Your task to perform on an android device: turn off sleep mode Image 0: 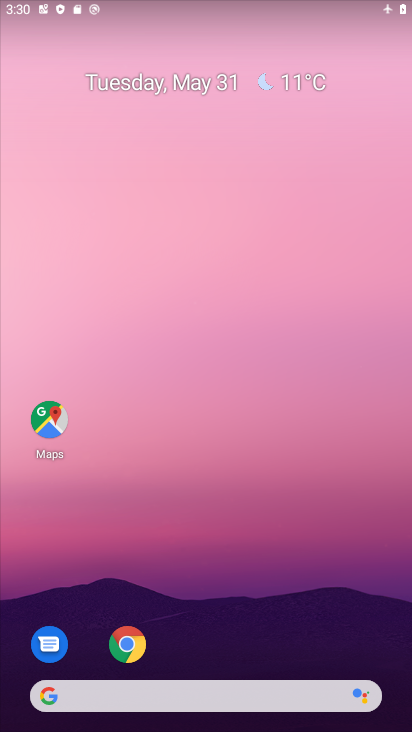
Step 0: drag from (206, 609) to (199, 534)
Your task to perform on an android device: turn off sleep mode Image 1: 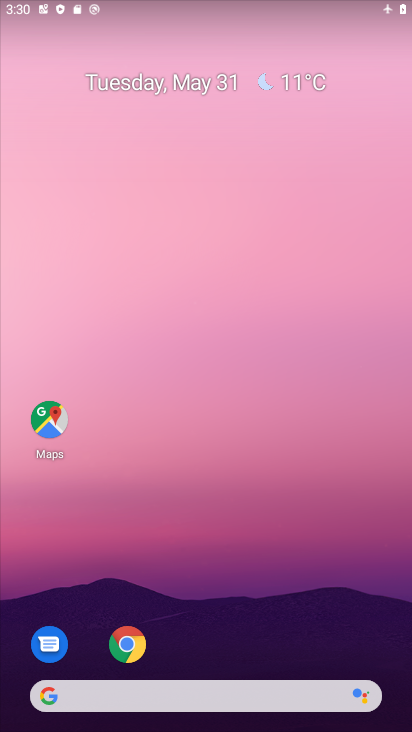
Step 1: drag from (223, 598) to (223, 402)
Your task to perform on an android device: turn off sleep mode Image 2: 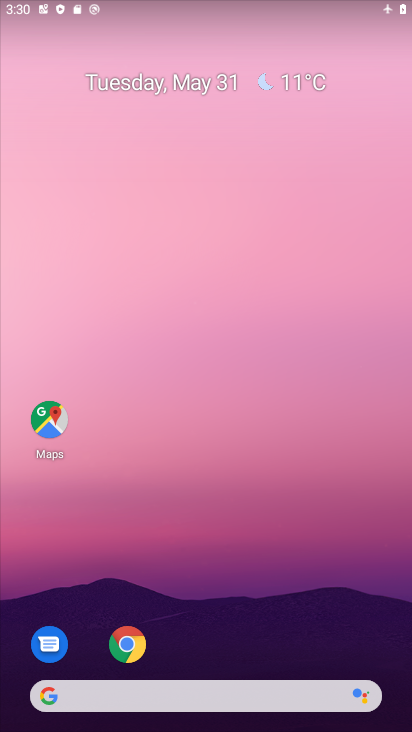
Step 2: drag from (246, 457) to (189, 6)
Your task to perform on an android device: turn off sleep mode Image 3: 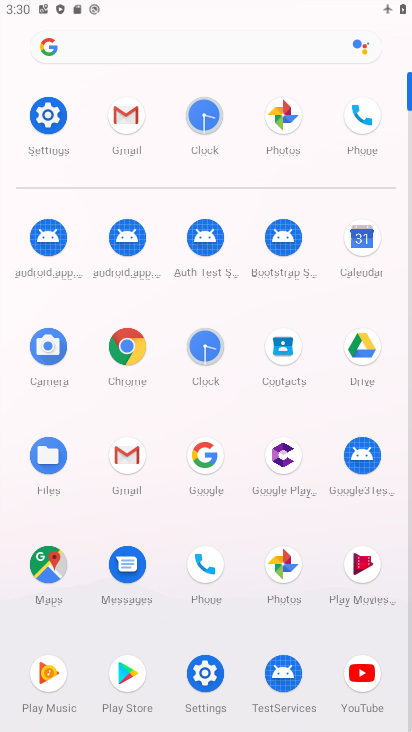
Step 3: click (88, 56)
Your task to perform on an android device: turn off sleep mode Image 4: 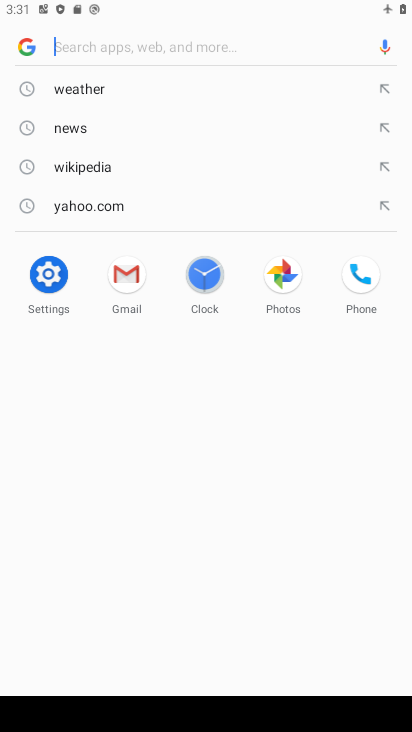
Step 4: press home button
Your task to perform on an android device: turn off sleep mode Image 5: 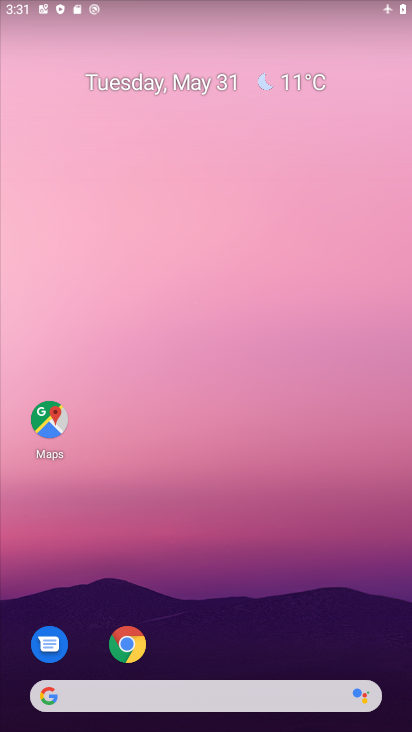
Step 5: drag from (249, 543) to (234, 21)
Your task to perform on an android device: turn off sleep mode Image 6: 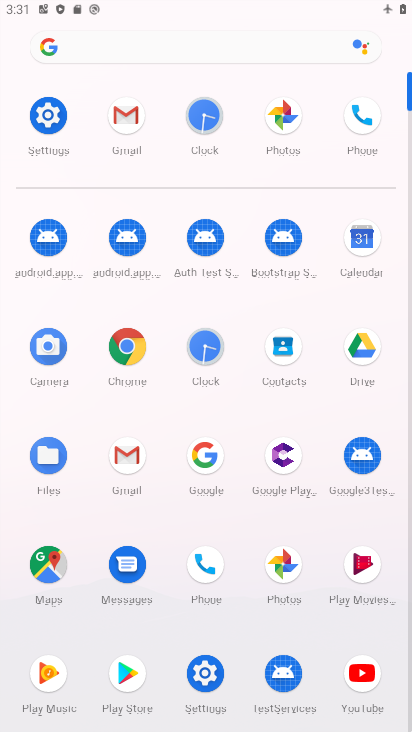
Step 6: click (41, 110)
Your task to perform on an android device: turn off sleep mode Image 7: 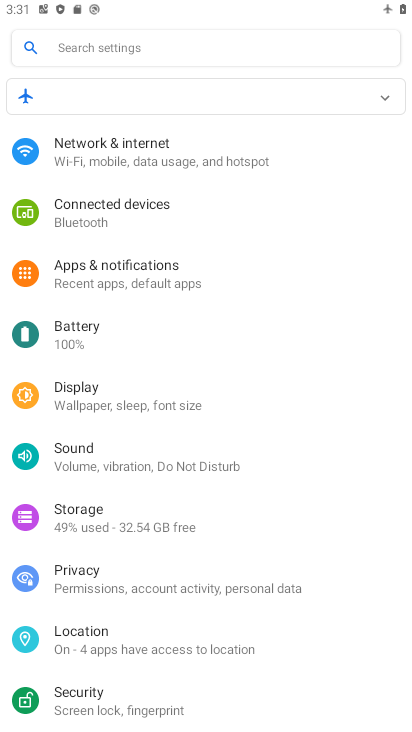
Step 7: click (86, 394)
Your task to perform on an android device: turn off sleep mode Image 8: 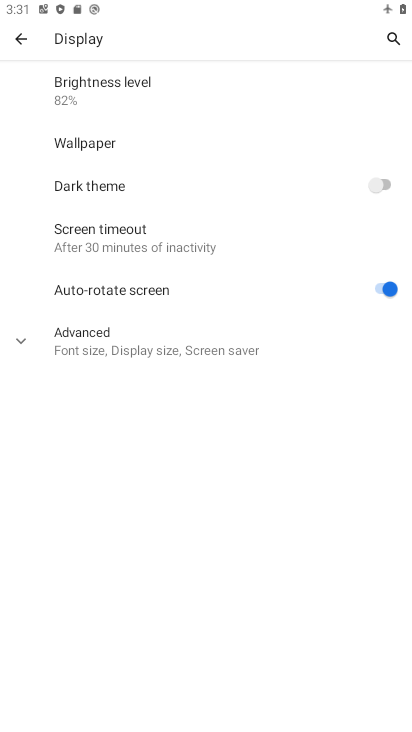
Step 8: click (121, 312)
Your task to perform on an android device: turn off sleep mode Image 9: 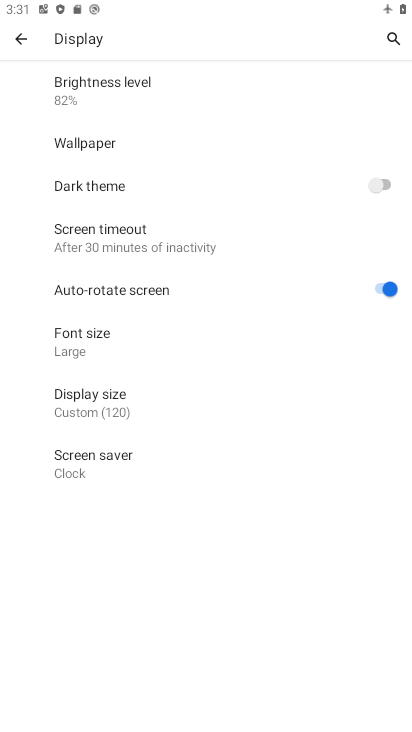
Step 9: task complete